Your task to perform on an android device: Search for Mexican restaurants on Maps Image 0: 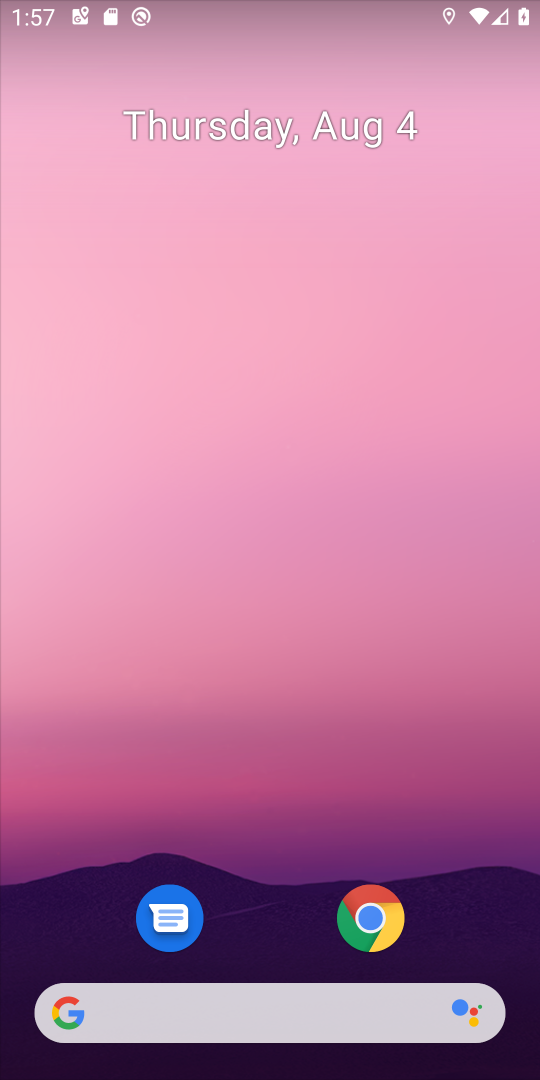
Step 0: drag from (262, 731) to (262, 272)
Your task to perform on an android device: Search for Mexican restaurants on Maps Image 1: 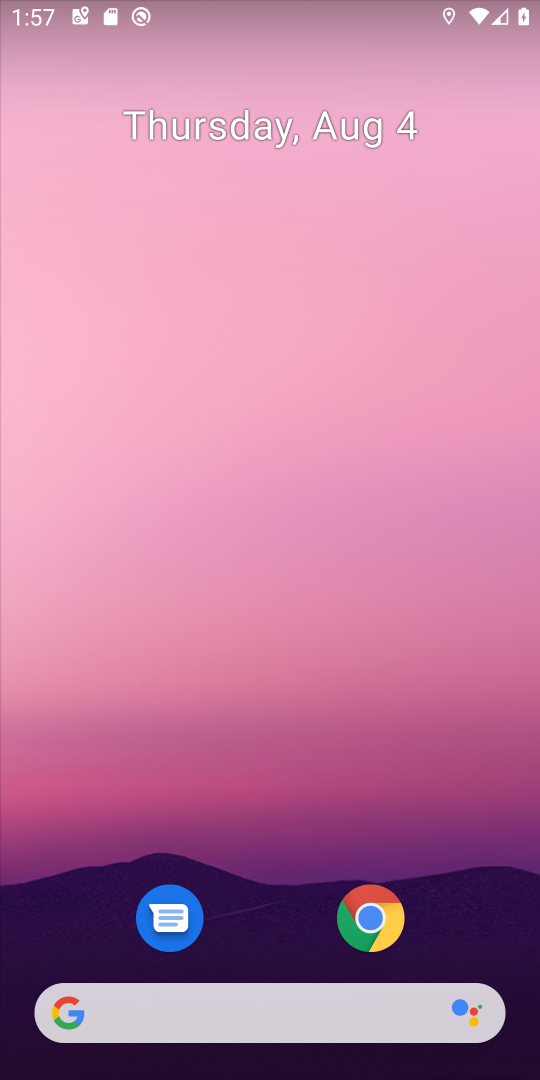
Step 1: drag from (282, 889) to (282, 320)
Your task to perform on an android device: Search for Mexican restaurants on Maps Image 2: 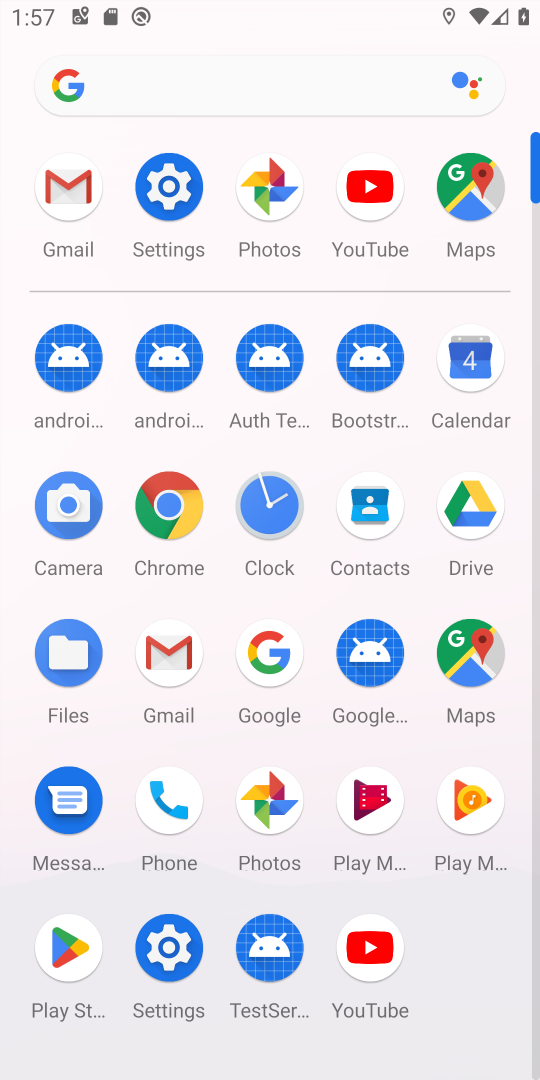
Step 2: click (479, 192)
Your task to perform on an android device: Search for Mexican restaurants on Maps Image 3: 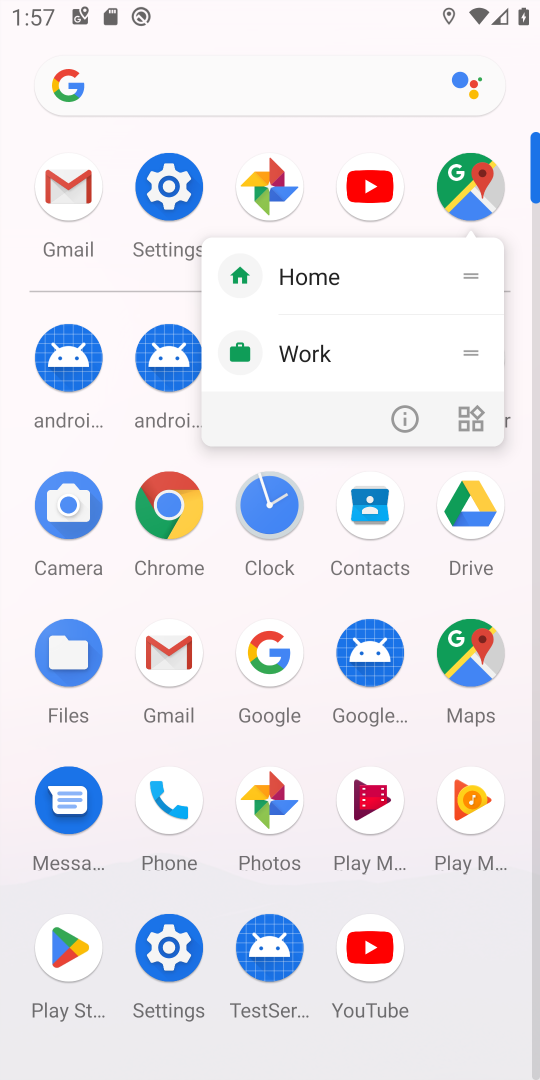
Step 3: click (477, 188)
Your task to perform on an android device: Search for Mexican restaurants on Maps Image 4: 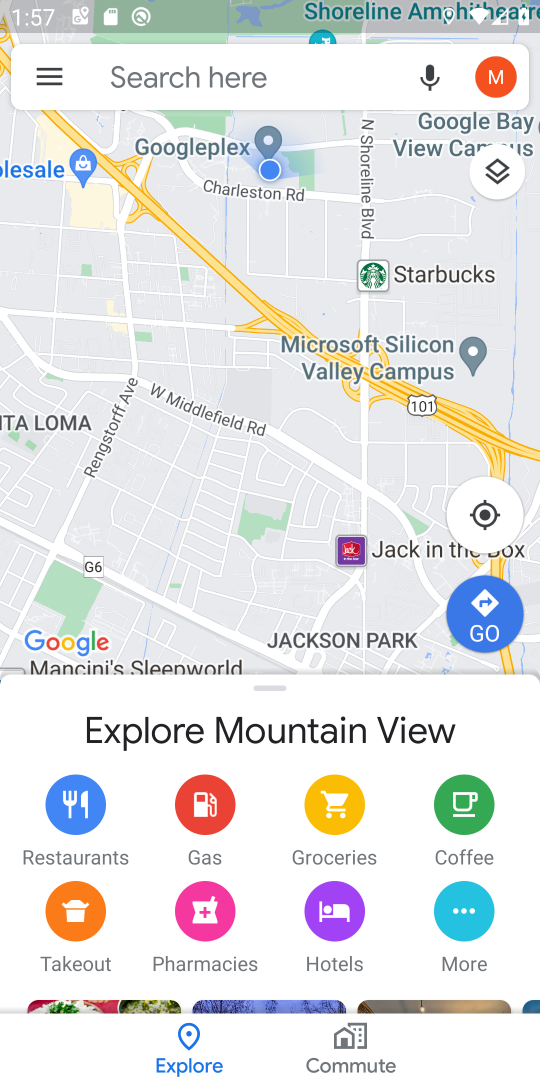
Step 4: click (205, 78)
Your task to perform on an android device: Search for Mexican restaurants on Maps Image 5: 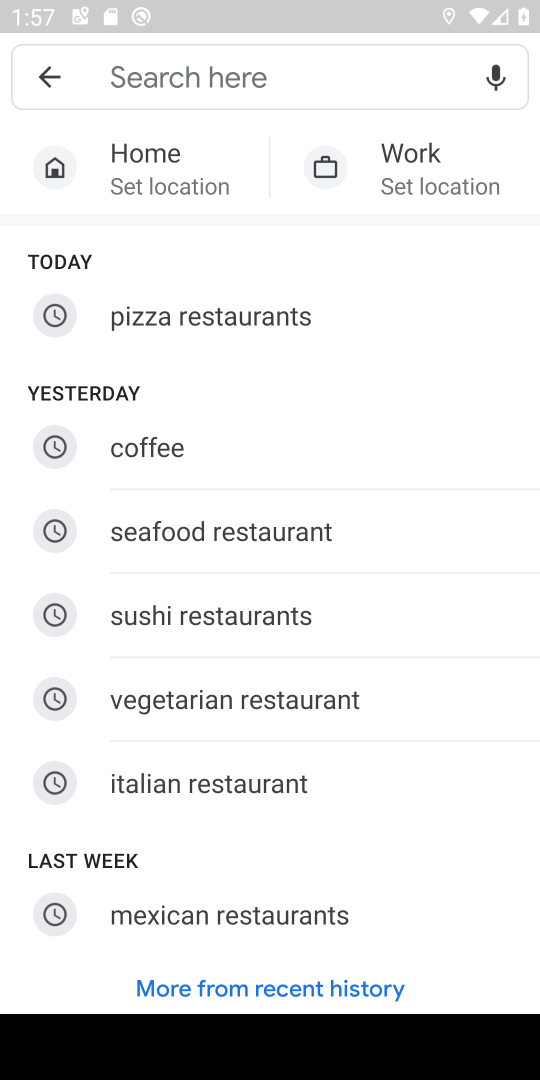
Step 5: click (218, 919)
Your task to perform on an android device: Search for Mexican restaurants on Maps Image 6: 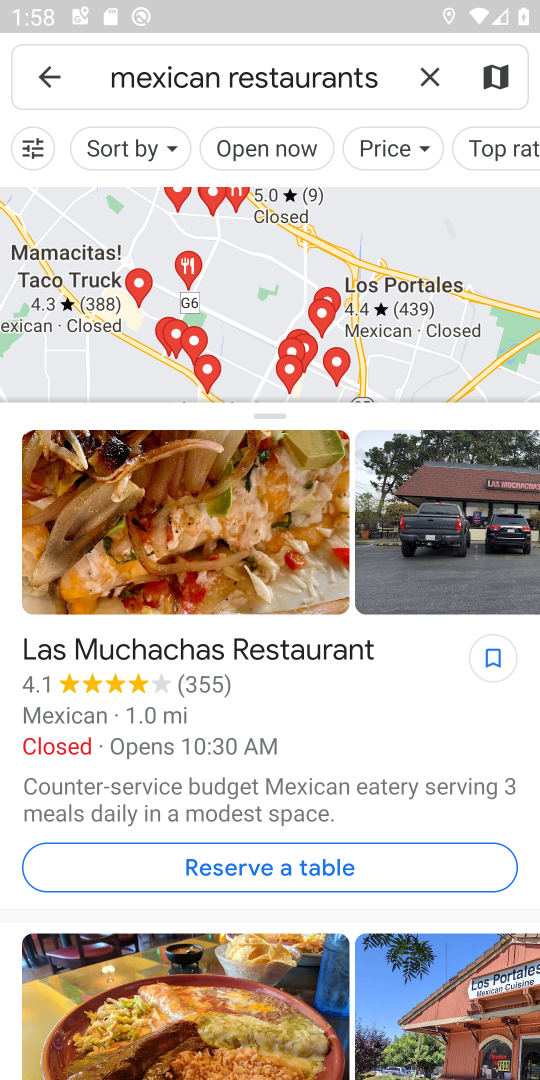
Step 6: task complete